Your task to perform on an android device: Search for Italian restaurants on Maps Image 0: 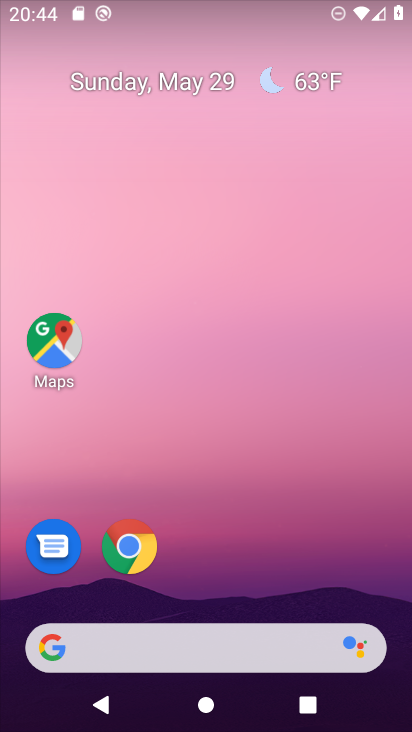
Step 0: click (52, 349)
Your task to perform on an android device: Search for Italian restaurants on Maps Image 1: 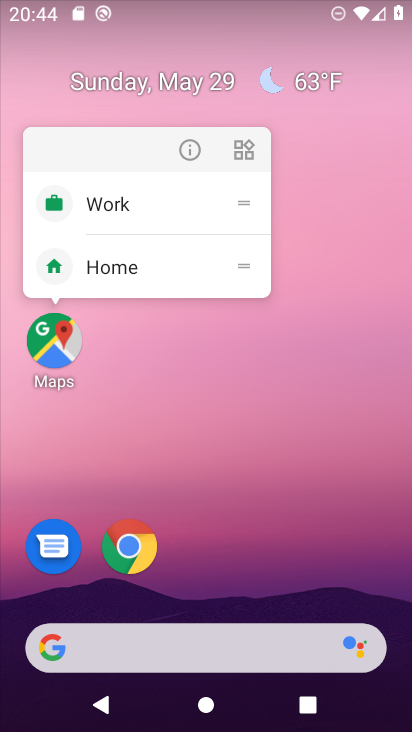
Step 1: click (52, 349)
Your task to perform on an android device: Search for Italian restaurants on Maps Image 2: 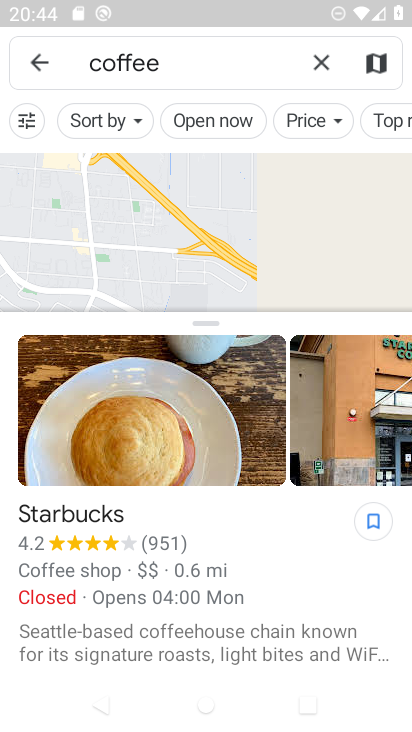
Step 2: click (319, 58)
Your task to perform on an android device: Search for Italian restaurants on Maps Image 3: 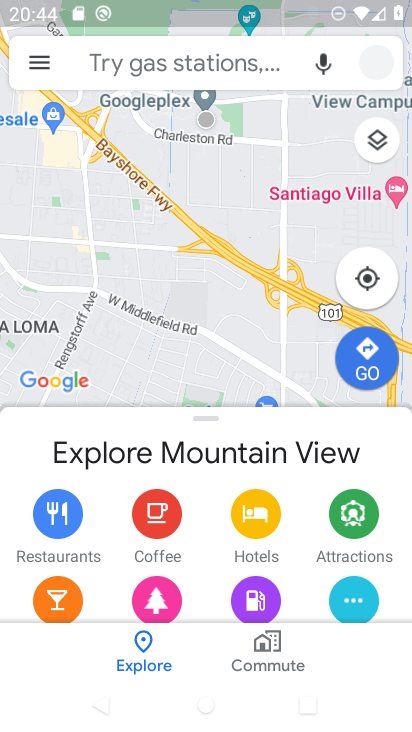
Step 3: click (208, 62)
Your task to perform on an android device: Search for Italian restaurants on Maps Image 4: 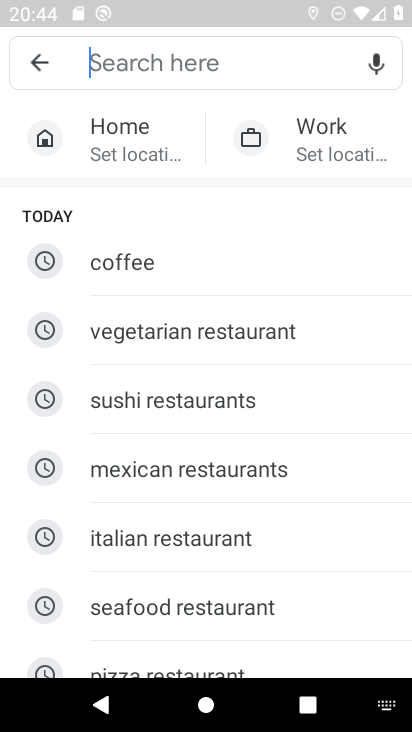
Step 4: click (204, 540)
Your task to perform on an android device: Search for Italian restaurants on Maps Image 5: 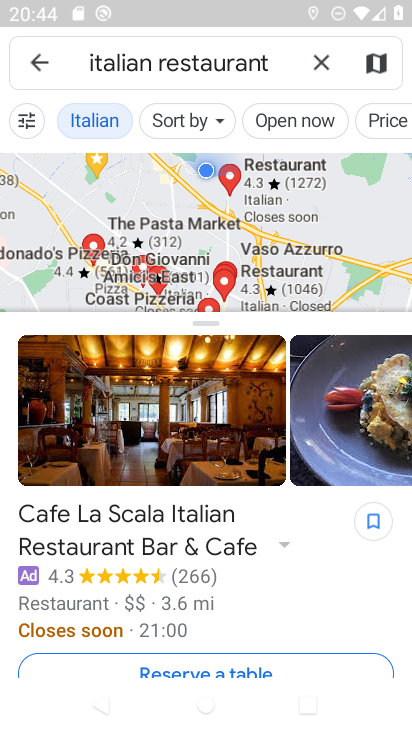
Step 5: task complete